Your task to perform on an android device: toggle javascript in the chrome app Image 0: 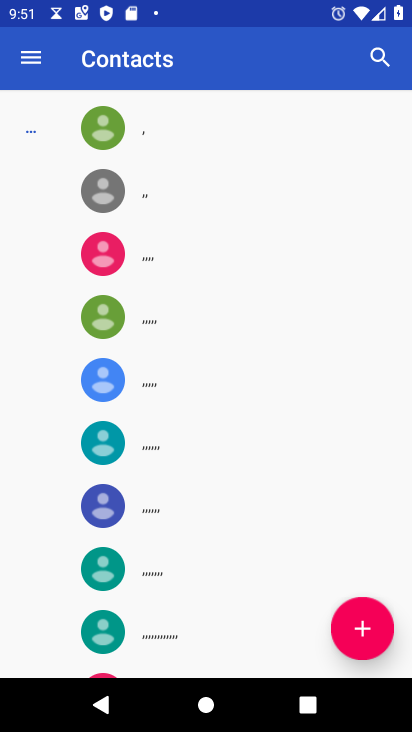
Step 0: press home button
Your task to perform on an android device: toggle javascript in the chrome app Image 1: 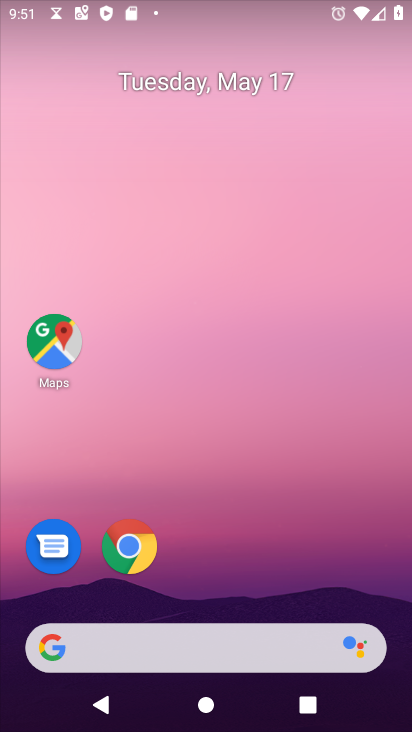
Step 1: click (131, 548)
Your task to perform on an android device: toggle javascript in the chrome app Image 2: 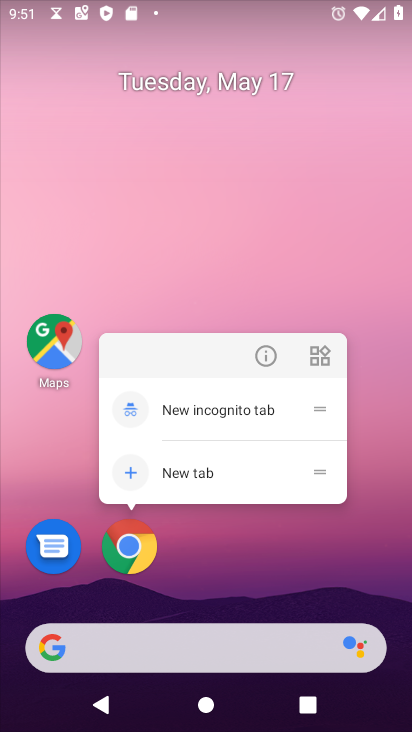
Step 2: click (134, 550)
Your task to perform on an android device: toggle javascript in the chrome app Image 3: 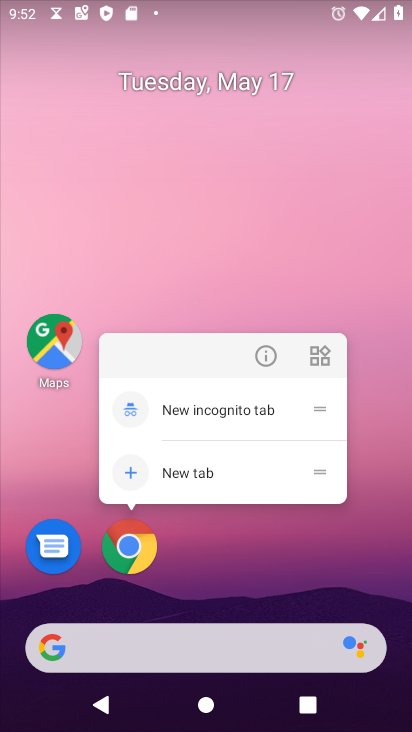
Step 3: click (136, 551)
Your task to perform on an android device: toggle javascript in the chrome app Image 4: 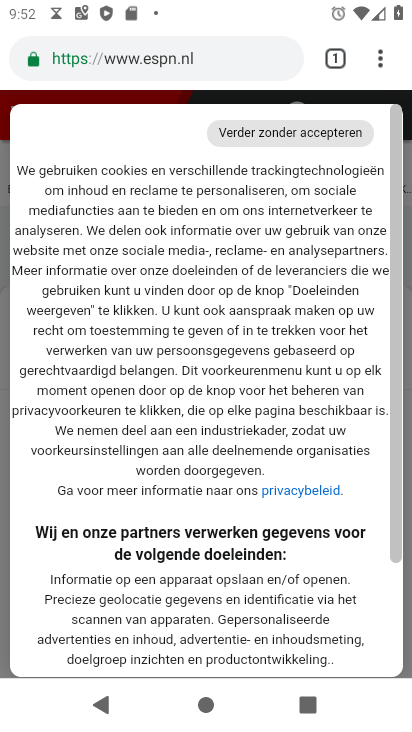
Step 4: click (373, 59)
Your task to perform on an android device: toggle javascript in the chrome app Image 5: 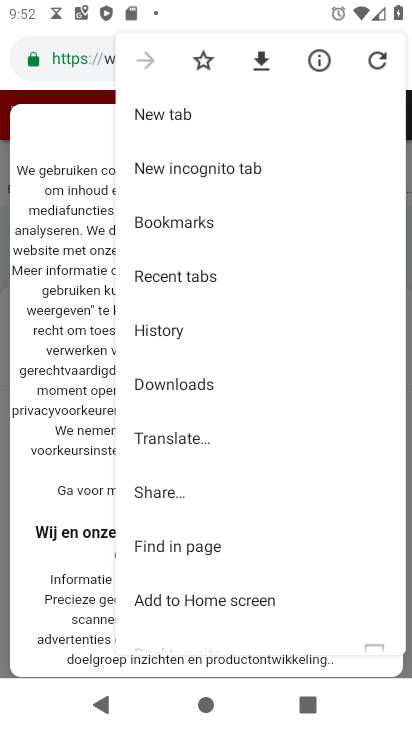
Step 5: drag from (241, 606) to (323, 298)
Your task to perform on an android device: toggle javascript in the chrome app Image 6: 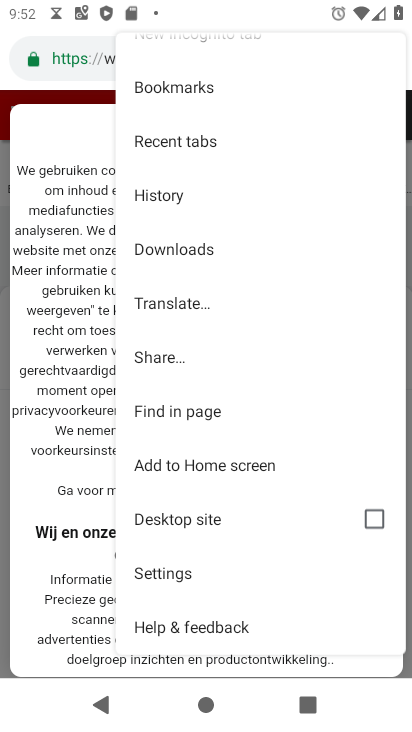
Step 6: click (207, 576)
Your task to perform on an android device: toggle javascript in the chrome app Image 7: 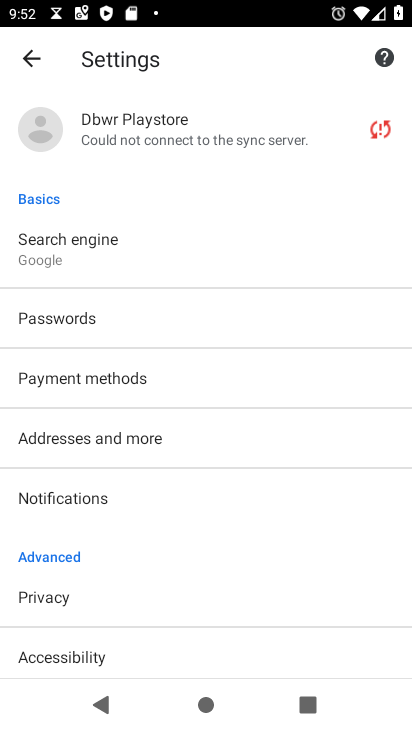
Step 7: drag from (155, 618) to (295, 235)
Your task to perform on an android device: toggle javascript in the chrome app Image 8: 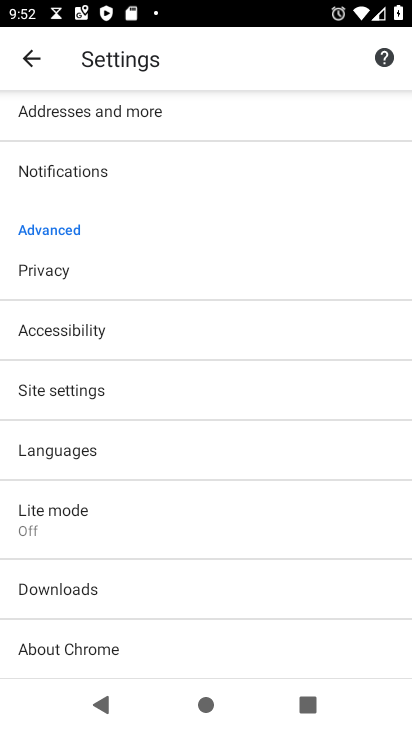
Step 8: click (57, 385)
Your task to perform on an android device: toggle javascript in the chrome app Image 9: 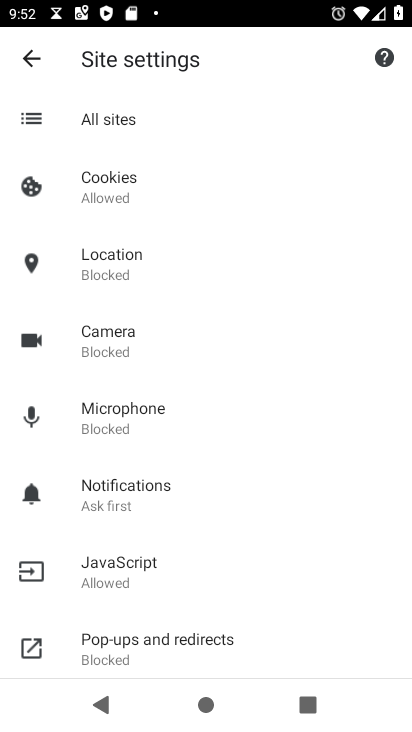
Step 9: click (146, 568)
Your task to perform on an android device: toggle javascript in the chrome app Image 10: 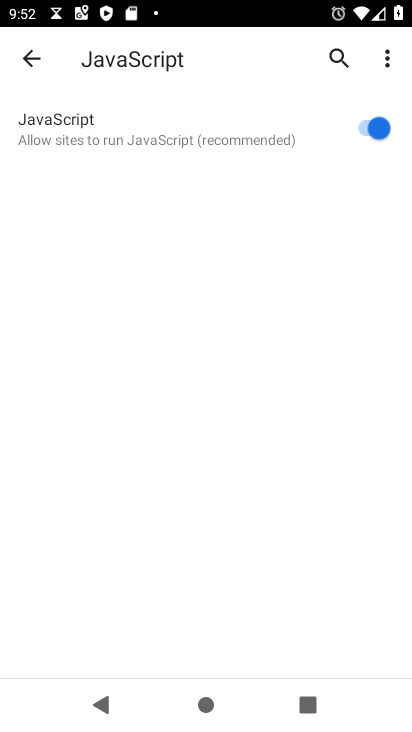
Step 10: click (369, 118)
Your task to perform on an android device: toggle javascript in the chrome app Image 11: 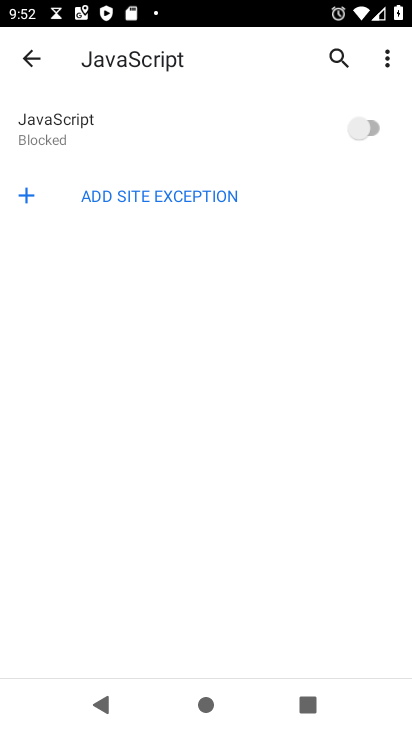
Step 11: task complete